Your task to perform on an android device: turn vacation reply on in the gmail app Image 0: 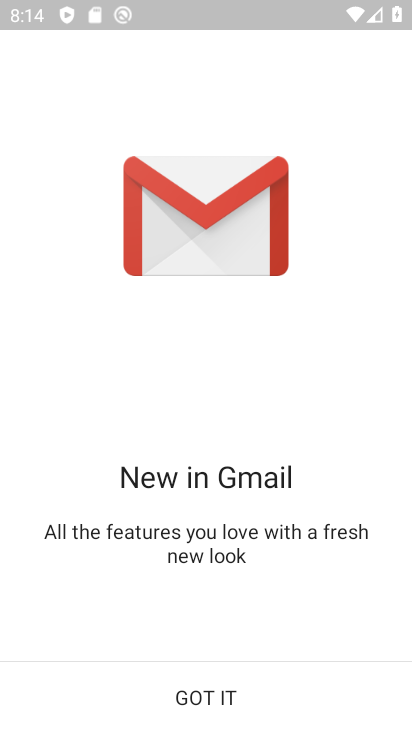
Step 0: press home button
Your task to perform on an android device: turn vacation reply on in the gmail app Image 1: 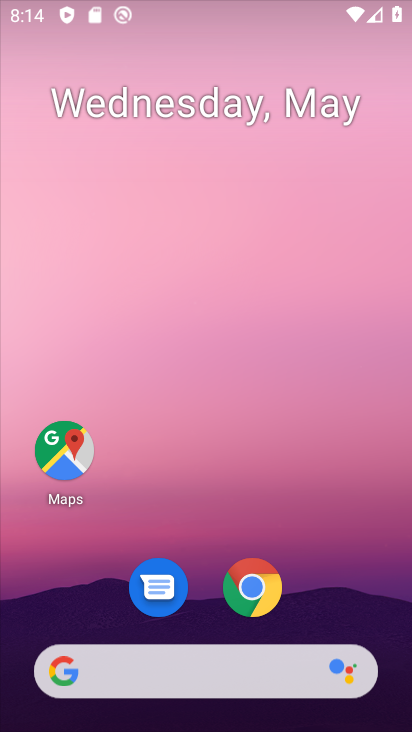
Step 1: drag from (212, 606) to (193, 8)
Your task to perform on an android device: turn vacation reply on in the gmail app Image 2: 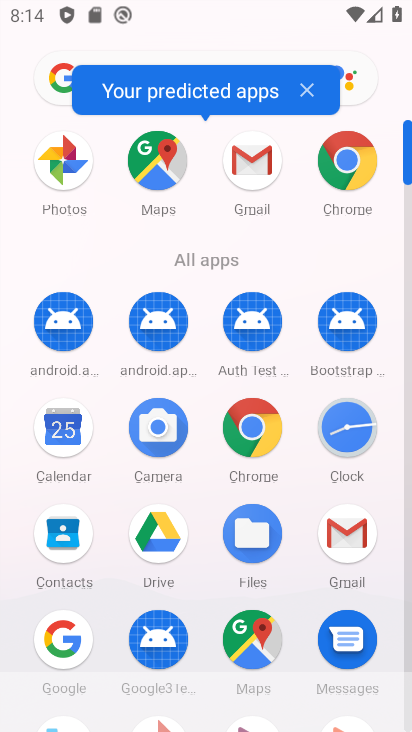
Step 2: click (323, 524)
Your task to perform on an android device: turn vacation reply on in the gmail app Image 3: 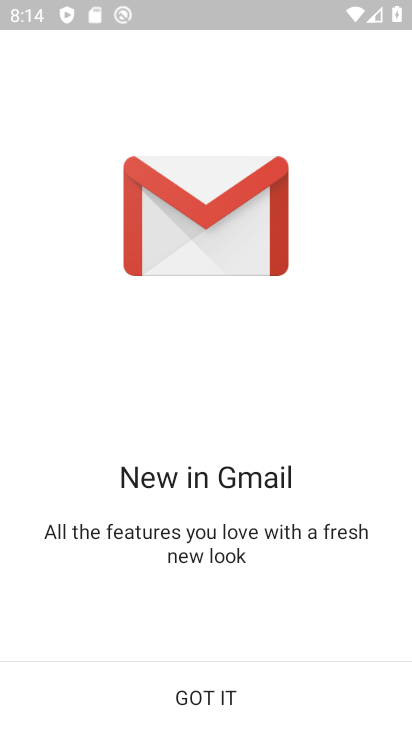
Step 3: click (130, 689)
Your task to perform on an android device: turn vacation reply on in the gmail app Image 4: 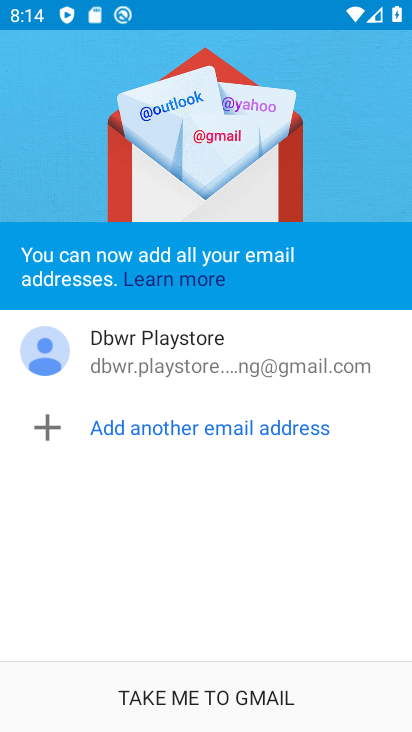
Step 4: click (259, 688)
Your task to perform on an android device: turn vacation reply on in the gmail app Image 5: 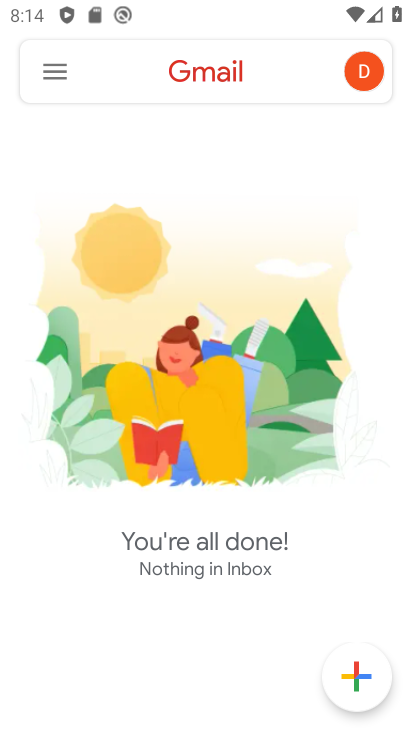
Step 5: click (63, 61)
Your task to perform on an android device: turn vacation reply on in the gmail app Image 6: 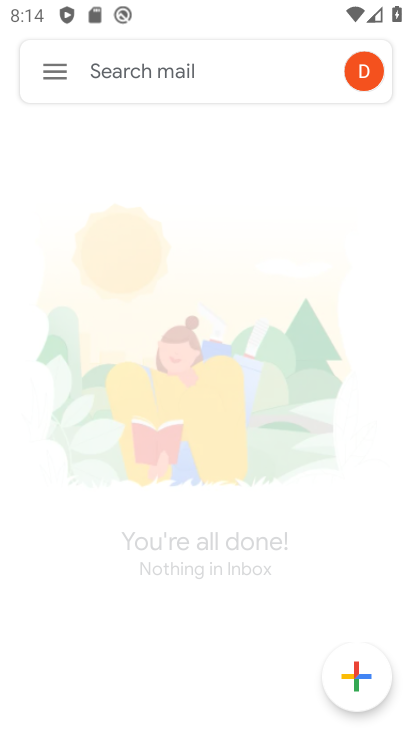
Step 6: drag from (157, 650) to (154, 450)
Your task to perform on an android device: turn vacation reply on in the gmail app Image 7: 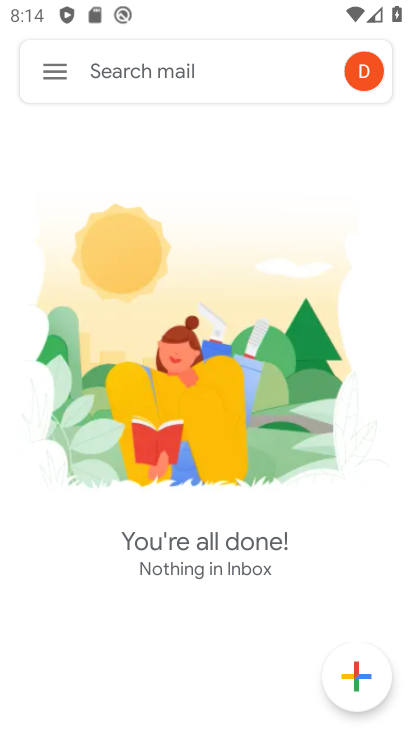
Step 7: click (63, 75)
Your task to perform on an android device: turn vacation reply on in the gmail app Image 8: 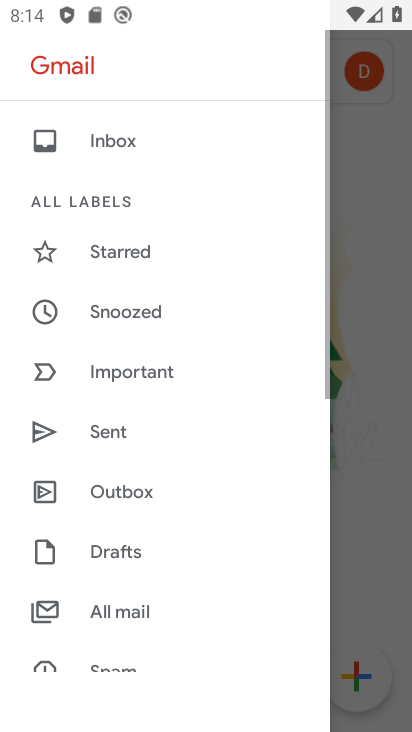
Step 8: drag from (125, 621) to (162, 108)
Your task to perform on an android device: turn vacation reply on in the gmail app Image 9: 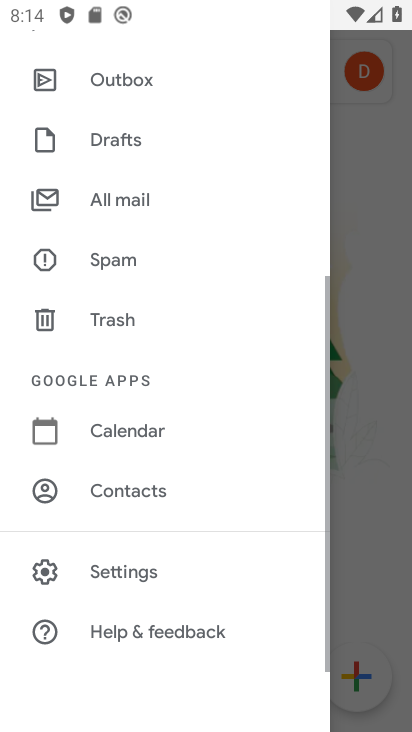
Step 9: click (130, 565)
Your task to perform on an android device: turn vacation reply on in the gmail app Image 10: 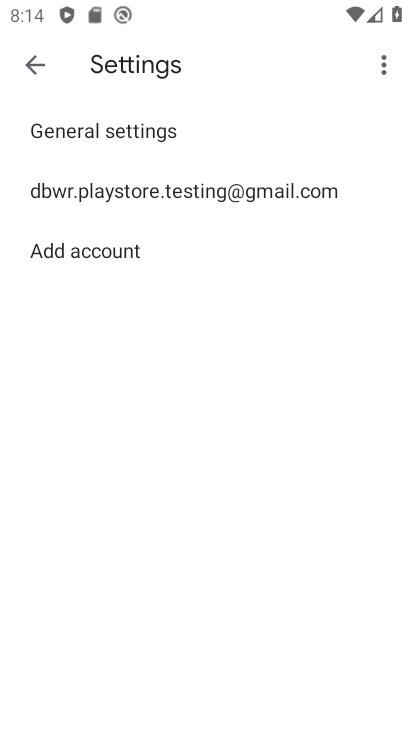
Step 10: click (177, 179)
Your task to perform on an android device: turn vacation reply on in the gmail app Image 11: 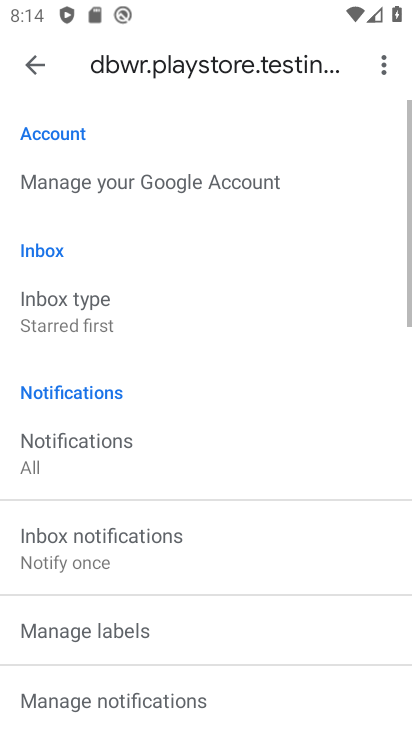
Step 11: drag from (146, 593) to (174, 81)
Your task to perform on an android device: turn vacation reply on in the gmail app Image 12: 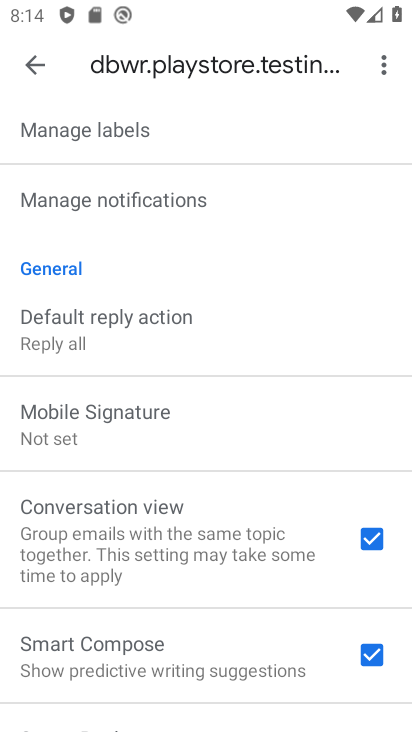
Step 12: drag from (138, 503) to (163, 171)
Your task to perform on an android device: turn vacation reply on in the gmail app Image 13: 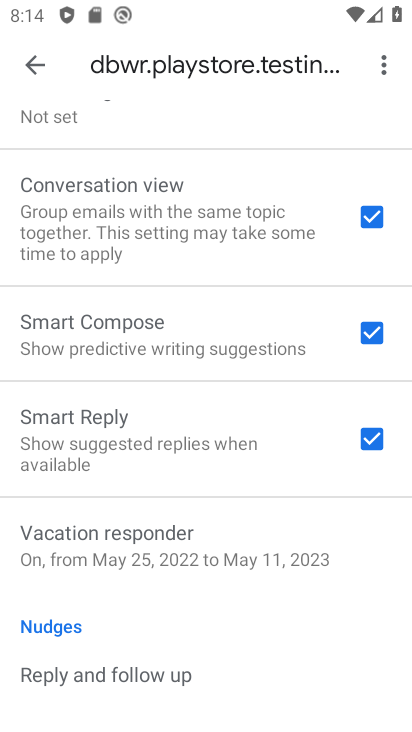
Step 13: click (145, 558)
Your task to perform on an android device: turn vacation reply on in the gmail app Image 14: 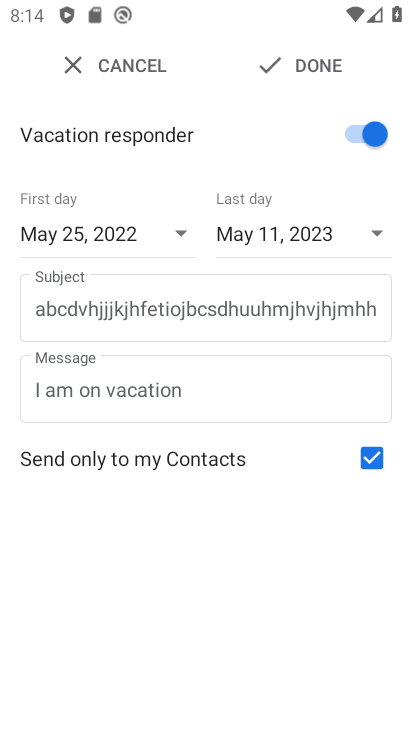
Step 14: click (317, 71)
Your task to perform on an android device: turn vacation reply on in the gmail app Image 15: 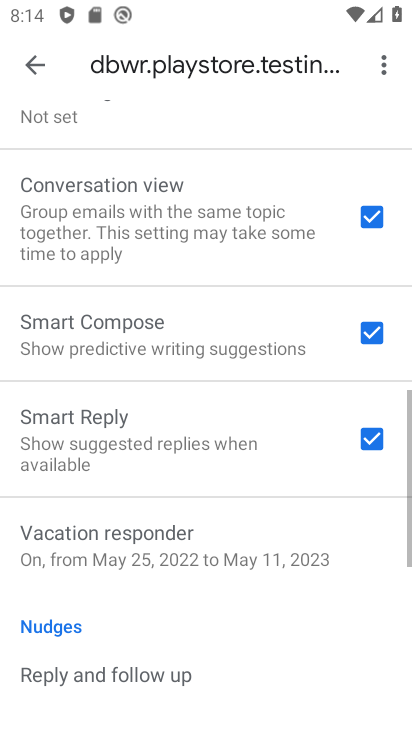
Step 15: task complete